Your task to perform on an android device: turn off smart reply in the gmail app Image 0: 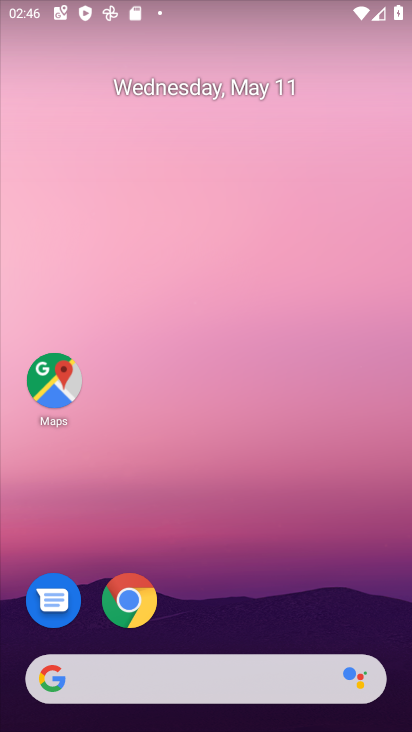
Step 0: drag from (141, 695) to (227, 189)
Your task to perform on an android device: turn off smart reply in the gmail app Image 1: 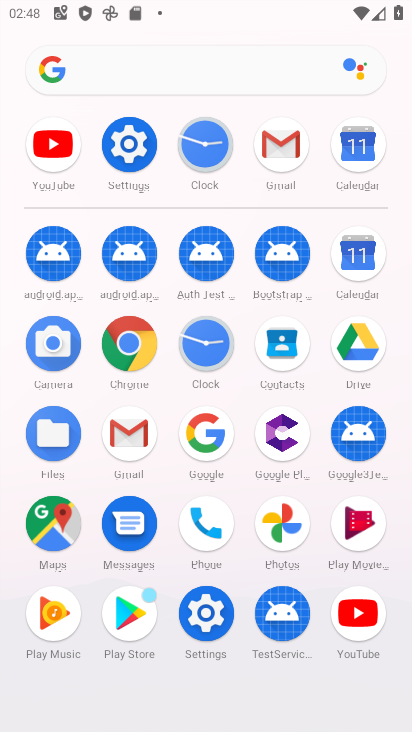
Step 1: click (291, 147)
Your task to perform on an android device: turn off smart reply in the gmail app Image 2: 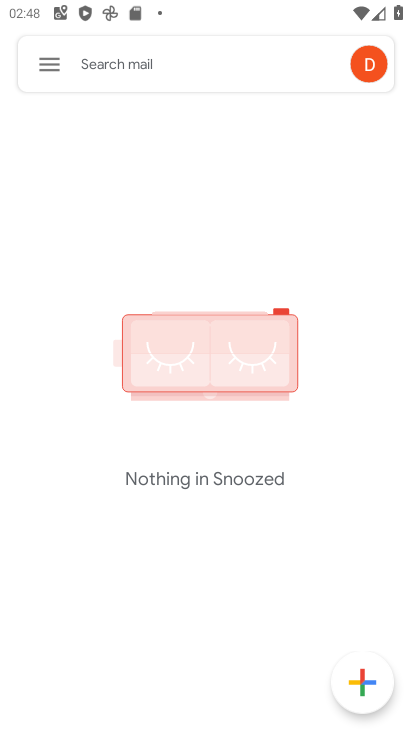
Step 2: click (52, 57)
Your task to perform on an android device: turn off smart reply in the gmail app Image 3: 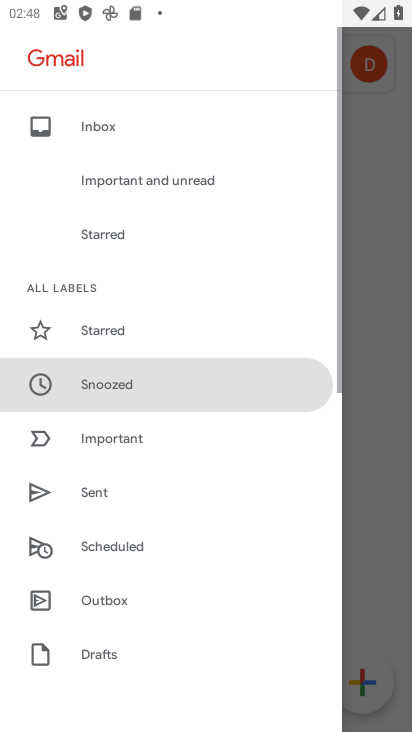
Step 3: drag from (156, 667) to (242, 161)
Your task to perform on an android device: turn off smart reply in the gmail app Image 4: 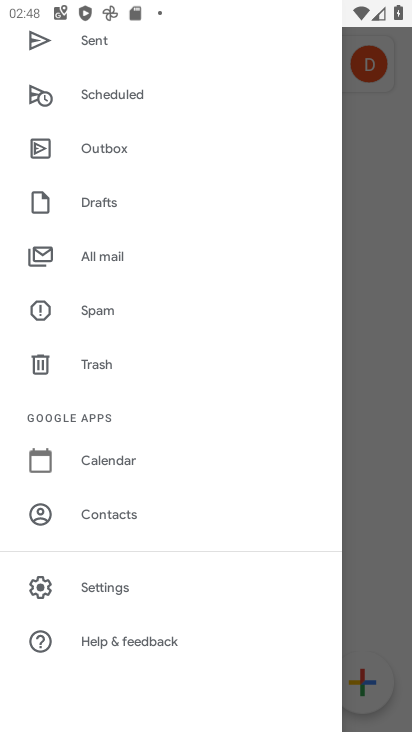
Step 4: click (130, 581)
Your task to perform on an android device: turn off smart reply in the gmail app Image 5: 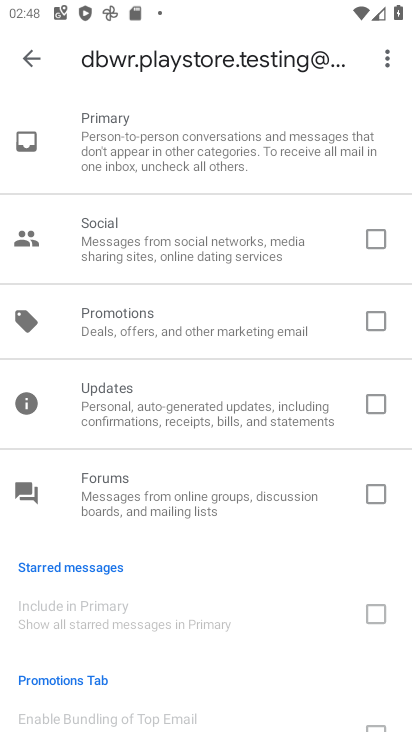
Step 5: click (43, 61)
Your task to perform on an android device: turn off smart reply in the gmail app Image 6: 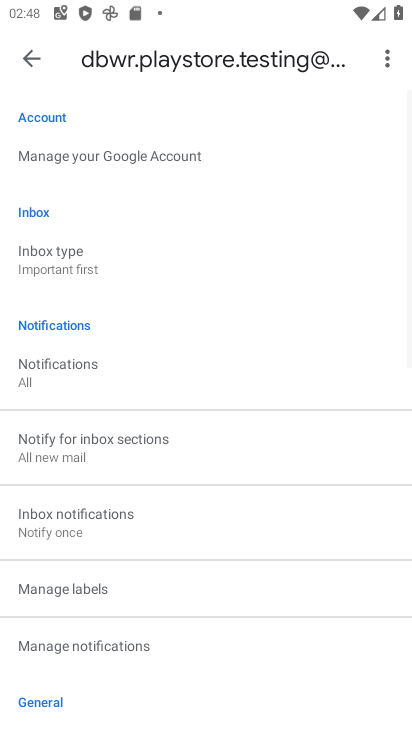
Step 6: task complete